Your task to perform on an android device: turn off notifications in google photos Image 0: 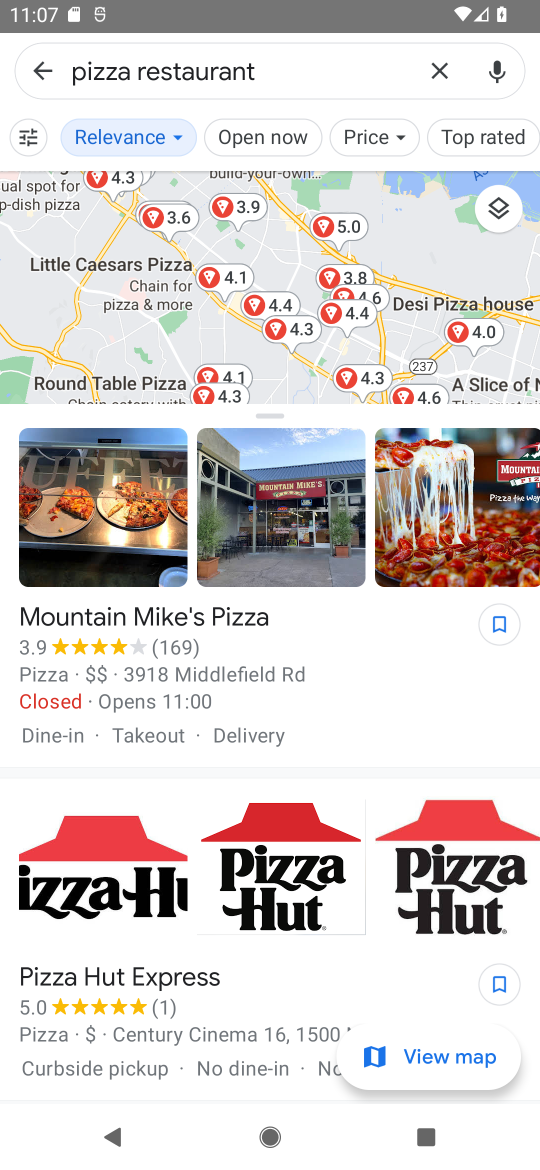
Step 0: press home button
Your task to perform on an android device: turn off notifications in google photos Image 1: 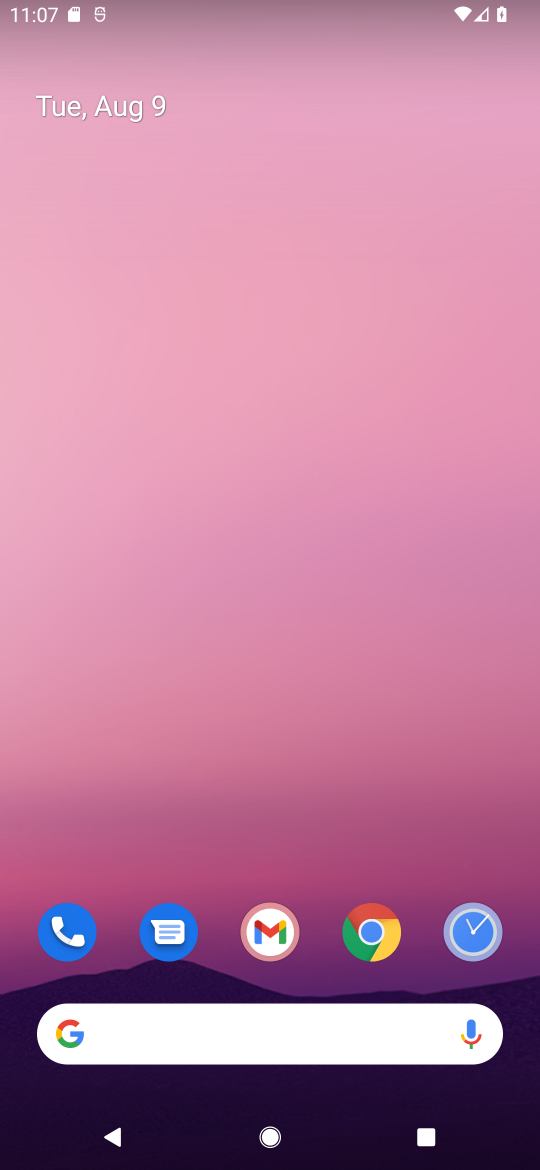
Step 1: drag from (285, 766) to (49, 188)
Your task to perform on an android device: turn off notifications in google photos Image 2: 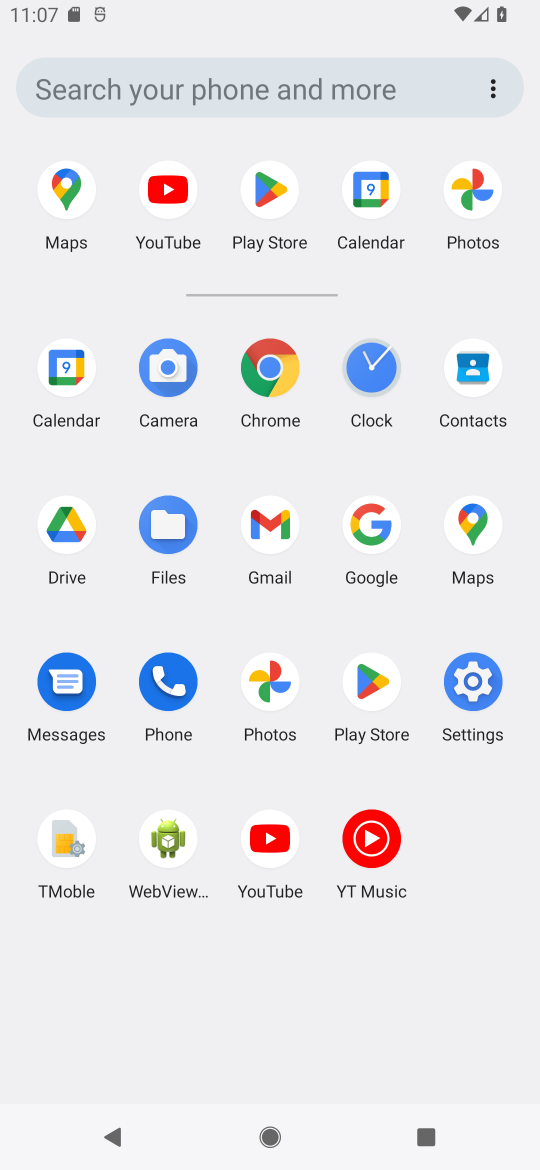
Step 2: click (272, 684)
Your task to perform on an android device: turn off notifications in google photos Image 3: 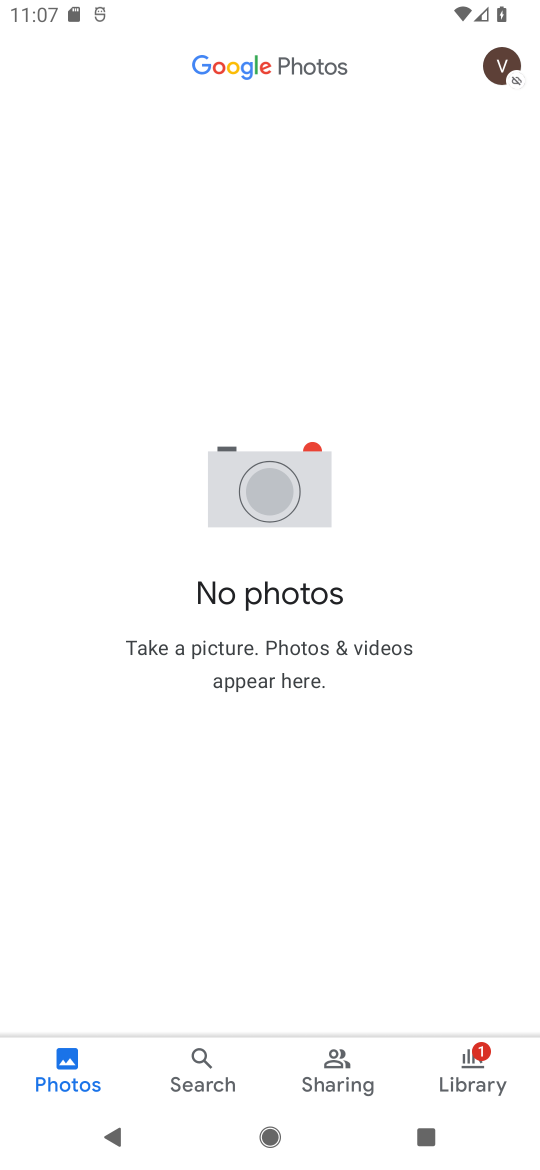
Step 3: click (495, 61)
Your task to perform on an android device: turn off notifications in google photos Image 4: 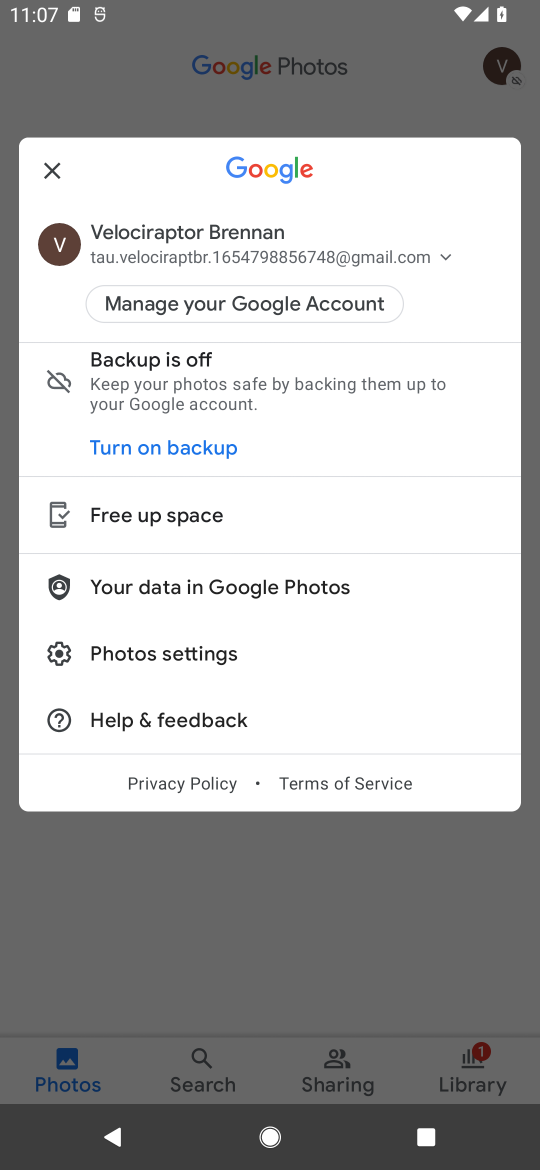
Step 4: click (166, 657)
Your task to perform on an android device: turn off notifications in google photos Image 5: 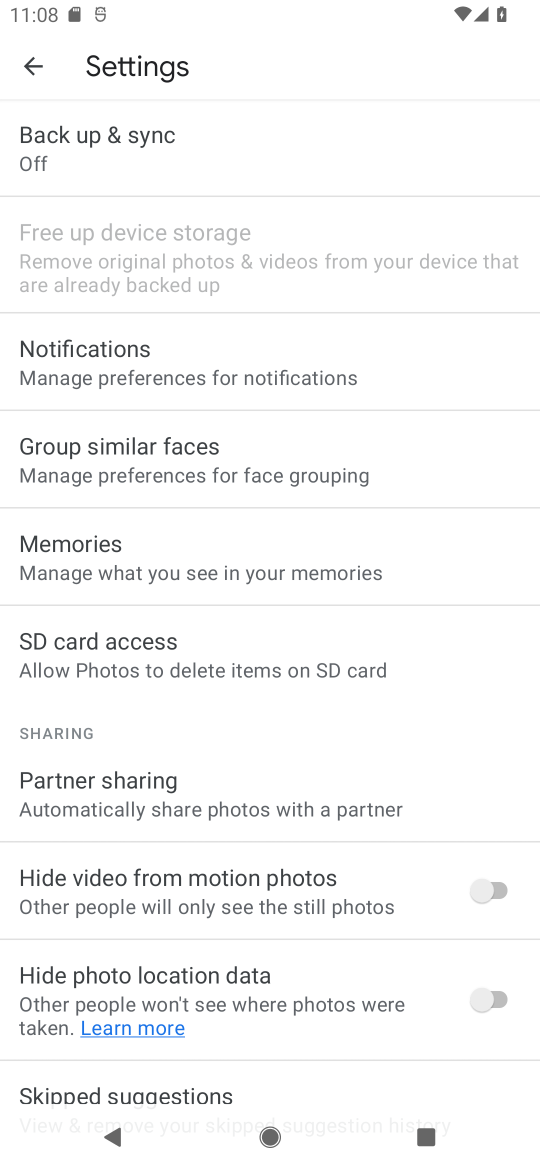
Step 5: click (191, 371)
Your task to perform on an android device: turn off notifications in google photos Image 6: 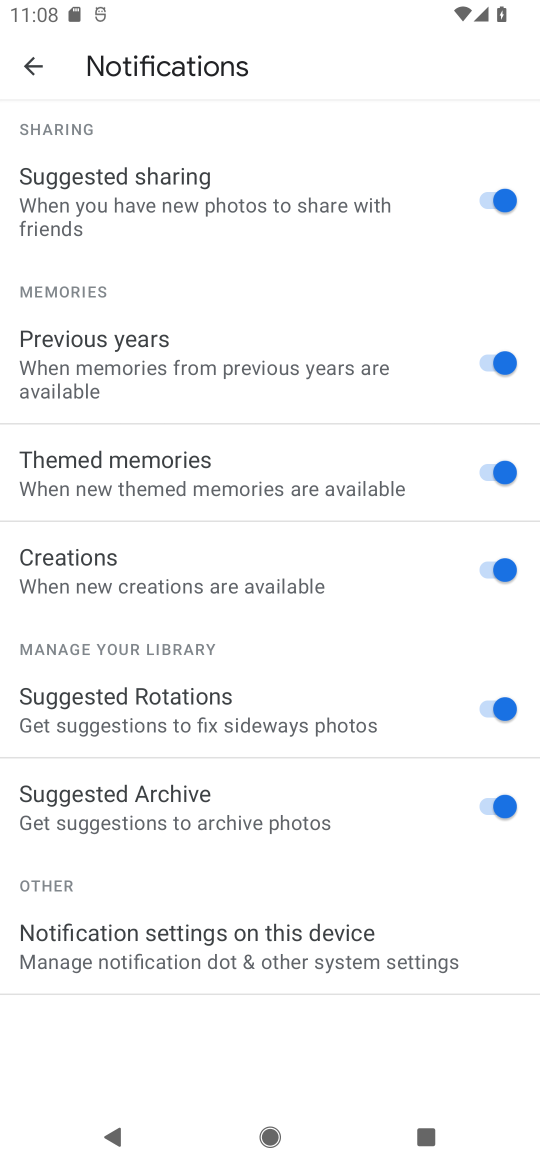
Step 6: click (201, 943)
Your task to perform on an android device: turn off notifications in google photos Image 7: 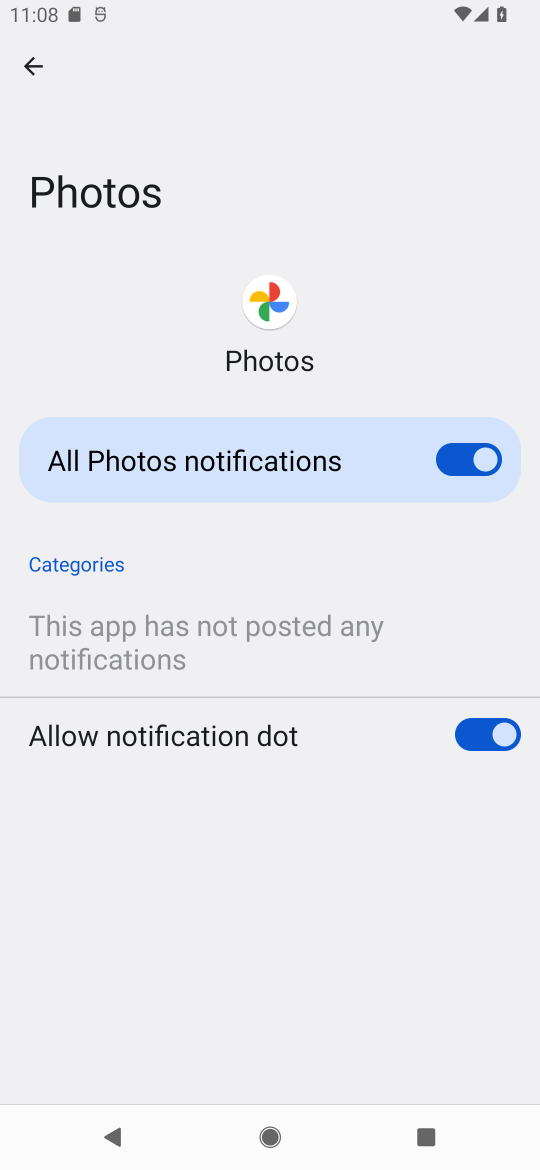
Step 7: click (419, 456)
Your task to perform on an android device: turn off notifications in google photos Image 8: 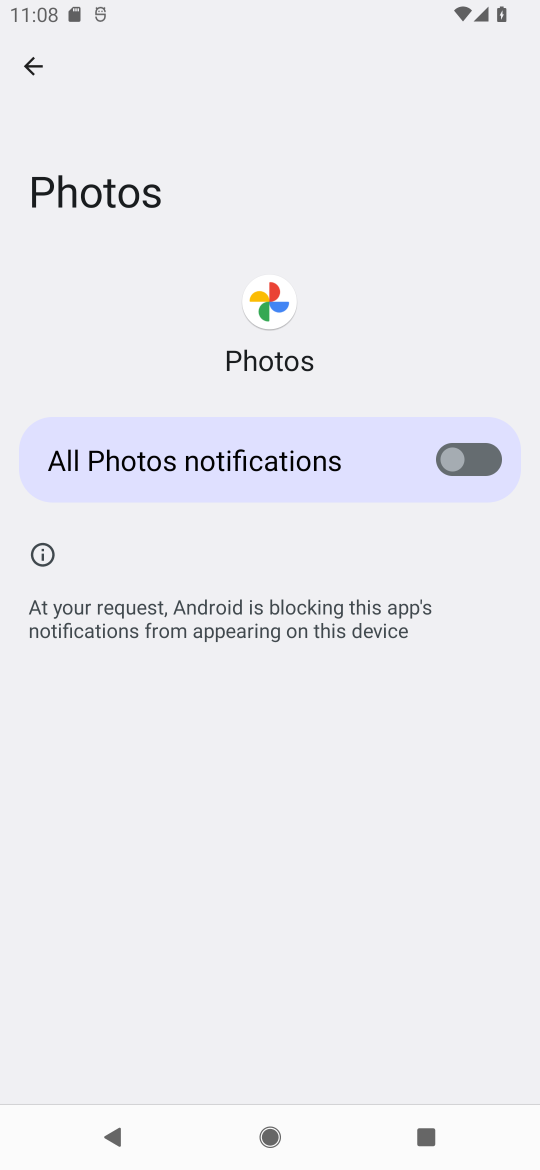
Step 8: task complete